Your task to perform on an android device: read, delete, or share a saved page in the chrome app Image 0: 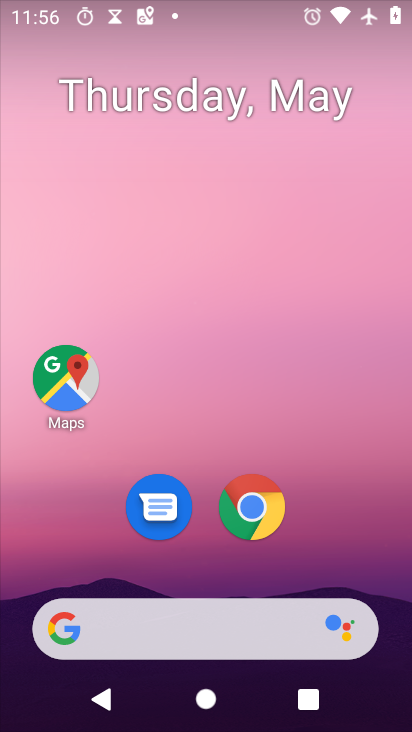
Step 0: drag from (320, 529) to (262, 53)
Your task to perform on an android device: read, delete, or share a saved page in the chrome app Image 1: 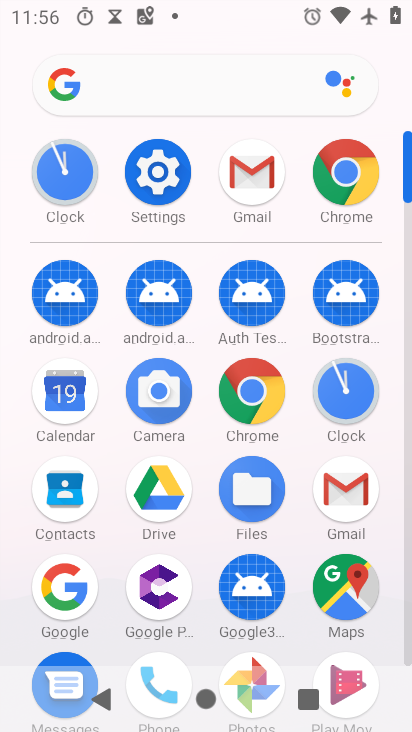
Step 1: drag from (12, 608) to (7, 269)
Your task to perform on an android device: read, delete, or share a saved page in the chrome app Image 2: 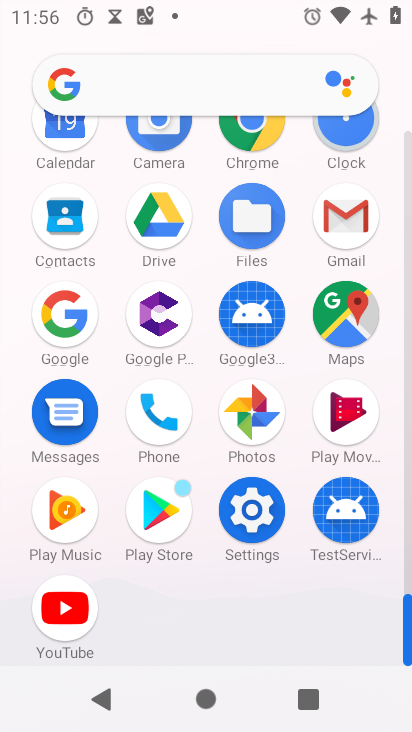
Step 2: click (252, 127)
Your task to perform on an android device: read, delete, or share a saved page in the chrome app Image 3: 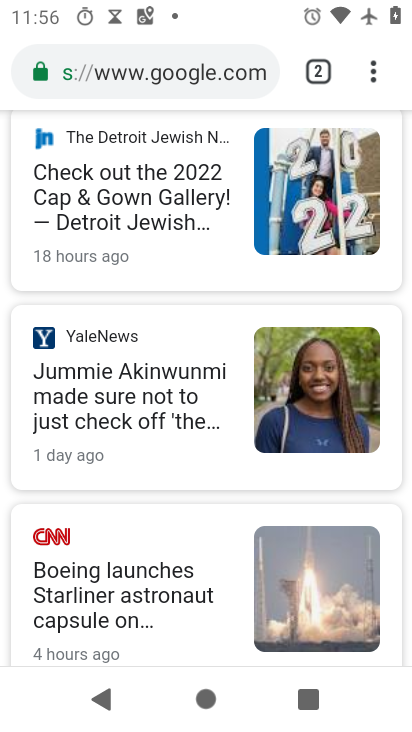
Step 3: task complete